Your task to perform on an android device: What's the weather? Image 0: 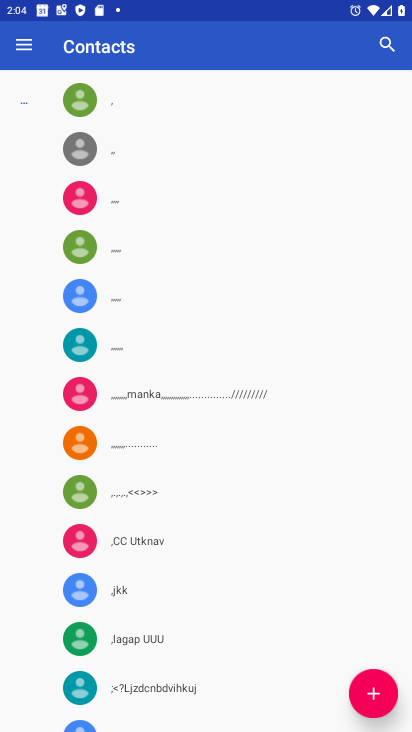
Step 0: press home button
Your task to perform on an android device: What's the weather? Image 1: 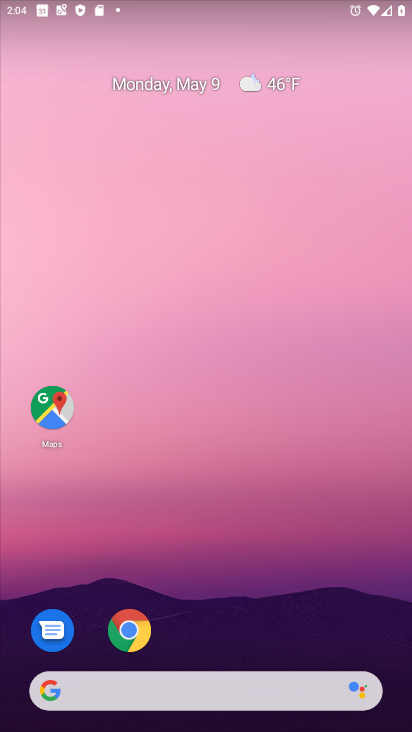
Step 1: drag from (230, 714) to (309, 395)
Your task to perform on an android device: What's the weather? Image 2: 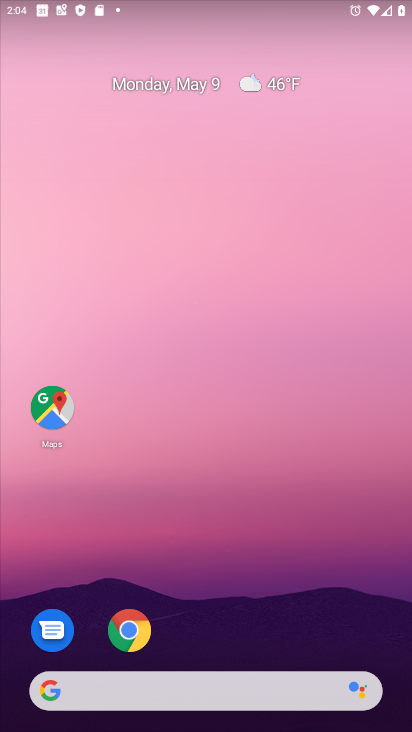
Step 2: click (130, 690)
Your task to perform on an android device: What's the weather? Image 3: 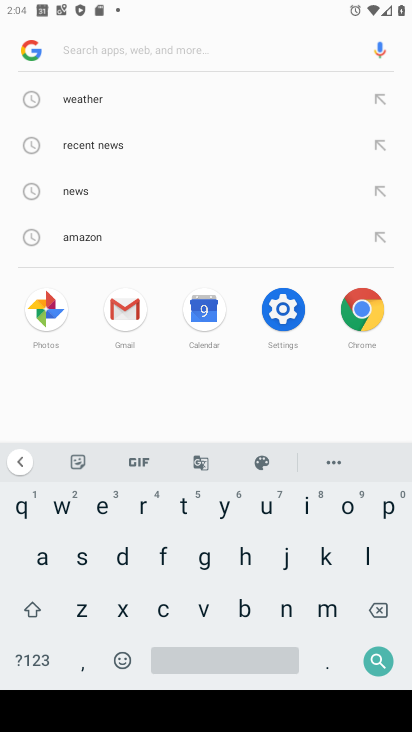
Step 3: click (102, 105)
Your task to perform on an android device: What's the weather? Image 4: 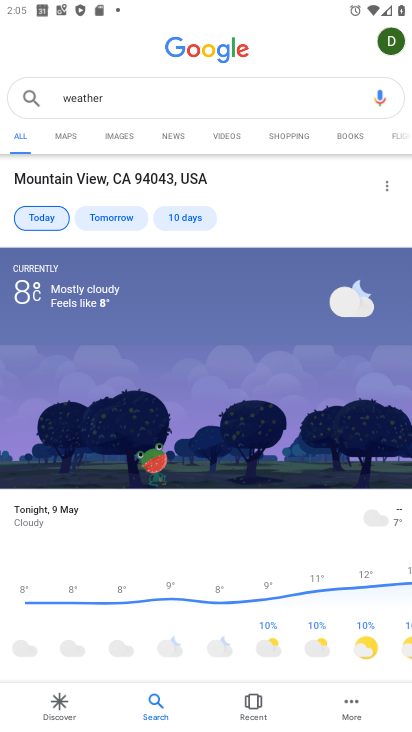
Step 4: task complete